Your task to perform on an android device: Open Google Maps Image 0: 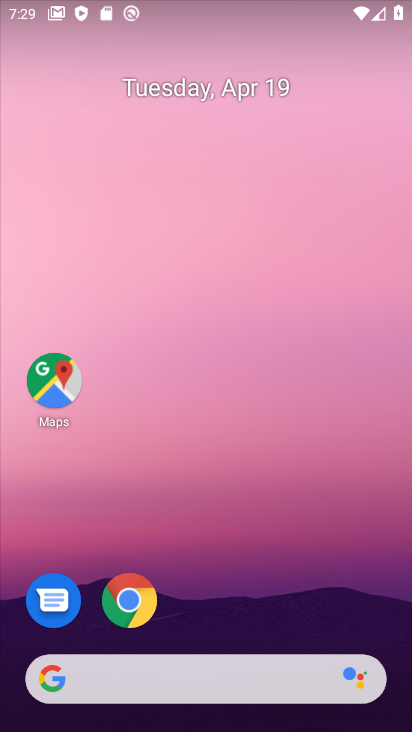
Step 0: drag from (382, 555) to (369, 97)
Your task to perform on an android device: Open Google Maps Image 1: 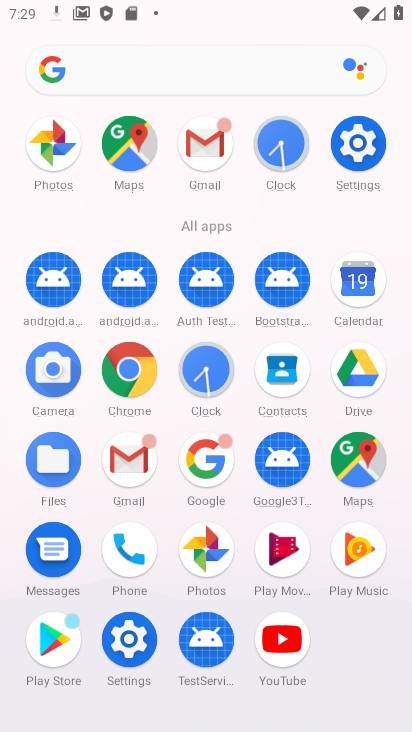
Step 1: click (359, 475)
Your task to perform on an android device: Open Google Maps Image 2: 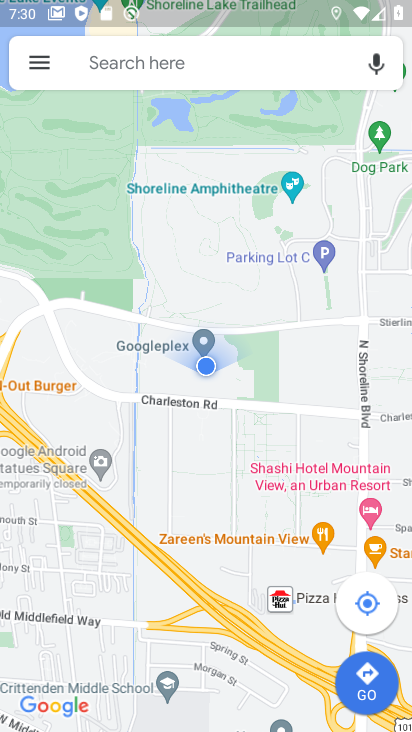
Step 2: task complete